Your task to perform on an android device: open a bookmark in the chrome app Image 0: 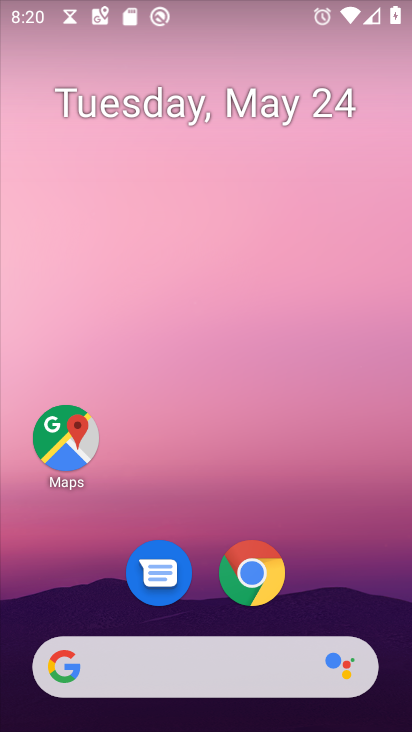
Step 0: drag from (373, 576) to (411, 41)
Your task to perform on an android device: open a bookmark in the chrome app Image 1: 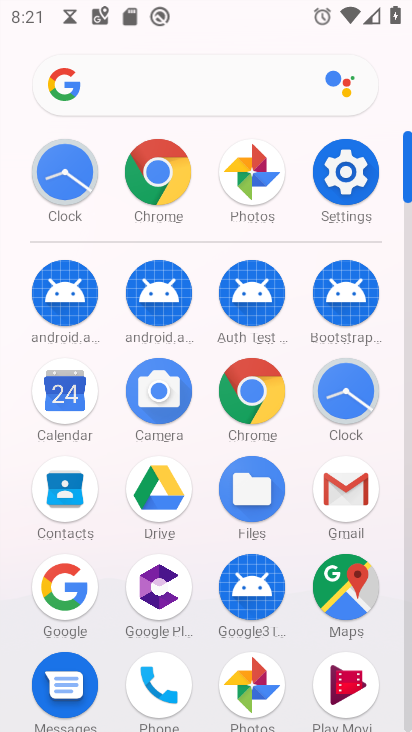
Step 1: click (157, 165)
Your task to perform on an android device: open a bookmark in the chrome app Image 2: 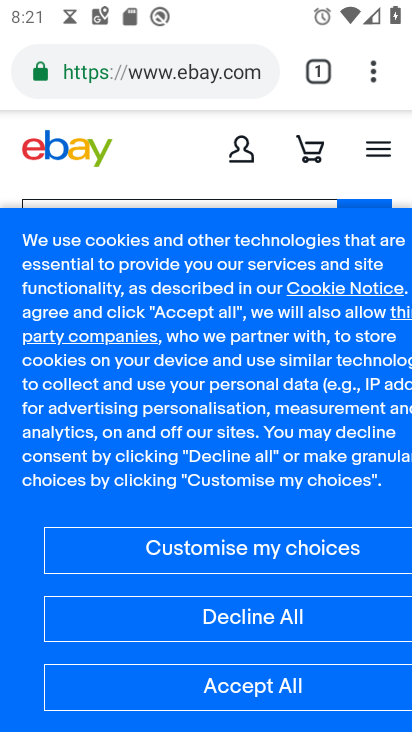
Step 2: drag from (372, 65) to (152, 282)
Your task to perform on an android device: open a bookmark in the chrome app Image 3: 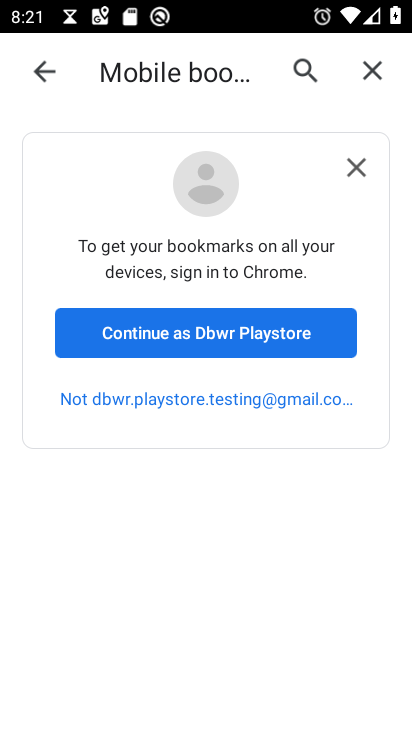
Step 3: click (188, 356)
Your task to perform on an android device: open a bookmark in the chrome app Image 4: 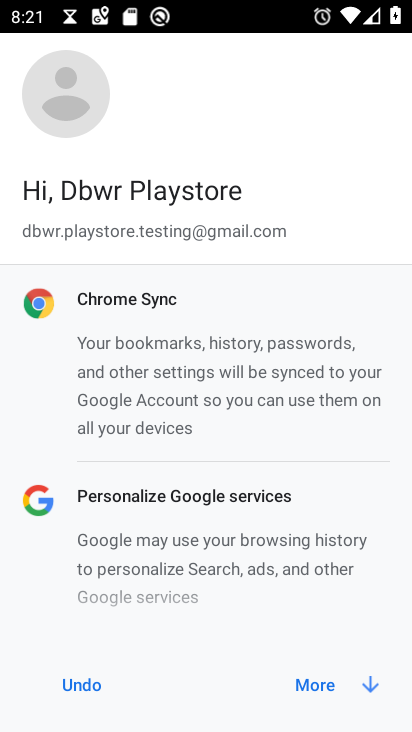
Step 4: click (357, 676)
Your task to perform on an android device: open a bookmark in the chrome app Image 5: 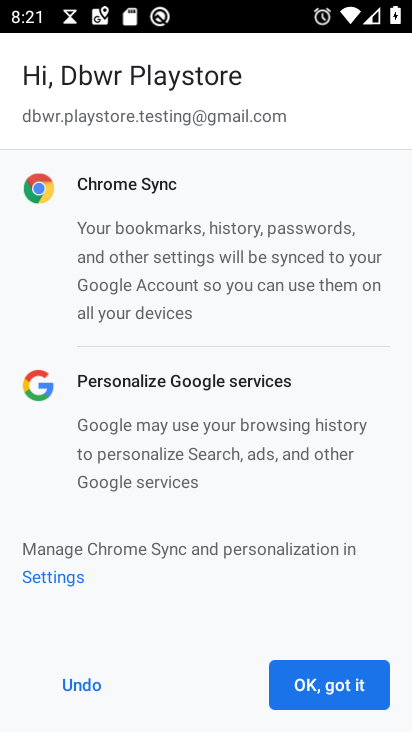
Step 5: click (337, 682)
Your task to perform on an android device: open a bookmark in the chrome app Image 6: 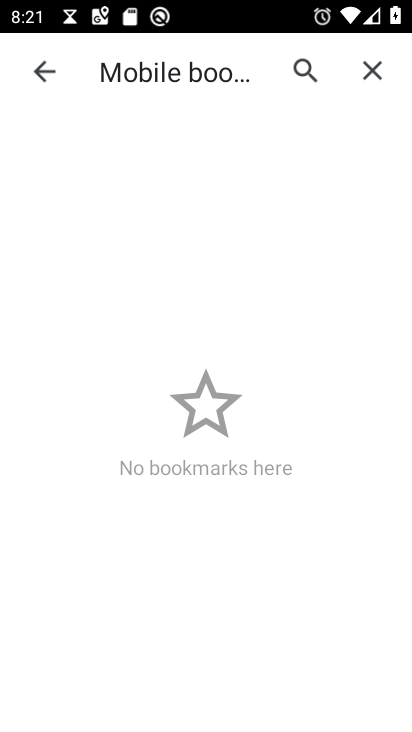
Step 6: task complete